Your task to perform on an android device: Open Google Image 0: 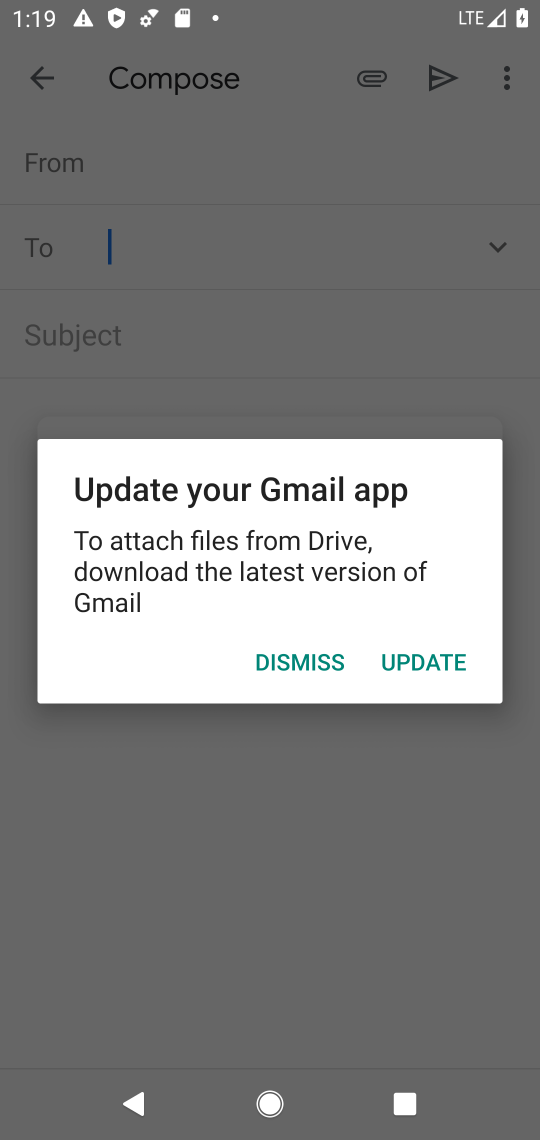
Step 0: press home button
Your task to perform on an android device: Open Google Image 1: 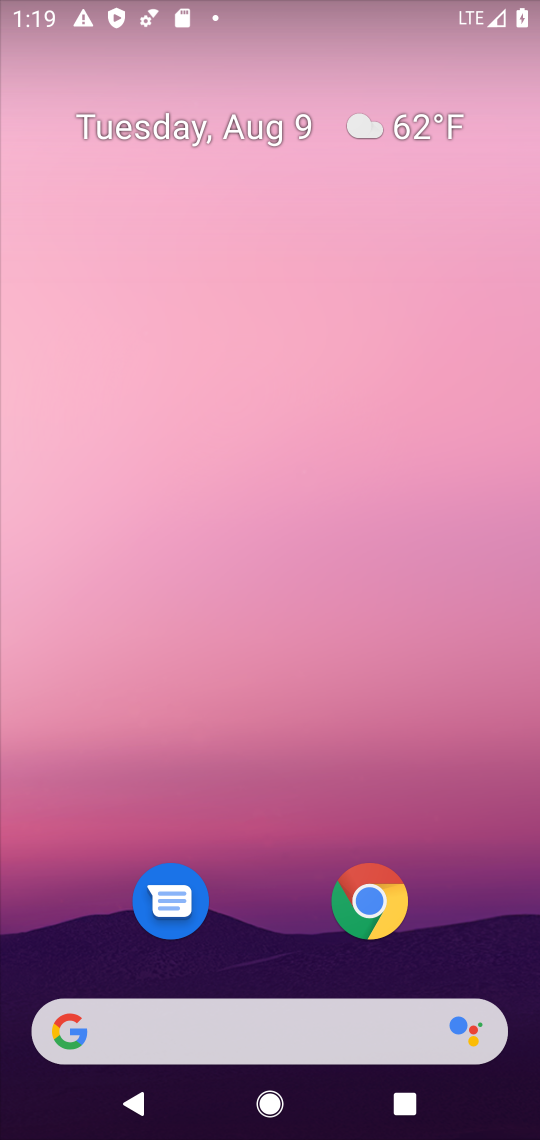
Step 1: click (379, 901)
Your task to perform on an android device: Open Google Image 2: 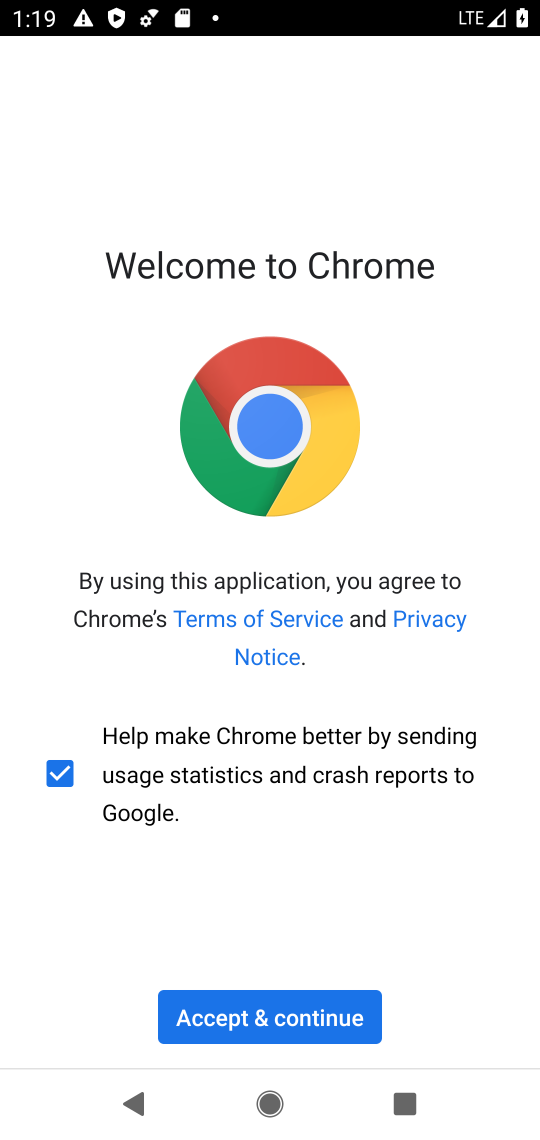
Step 2: click (244, 1018)
Your task to perform on an android device: Open Google Image 3: 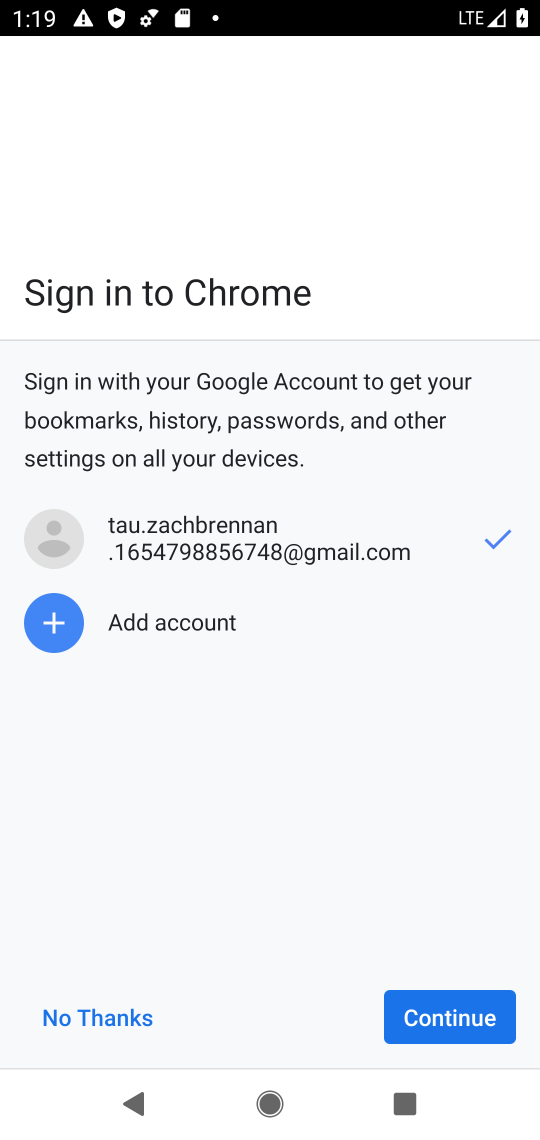
Step 3: click (451, 1010)
Your task to perform on an android device: Open Google Image 4: 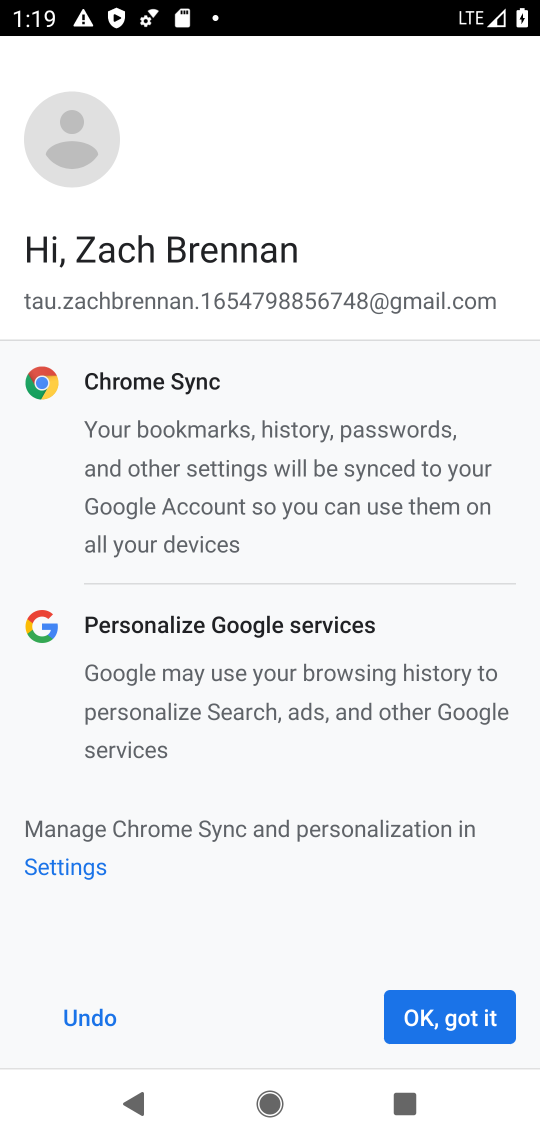
Step 4: click (451, 1021)
Your task to perform on an android device: Open Google Image 5: 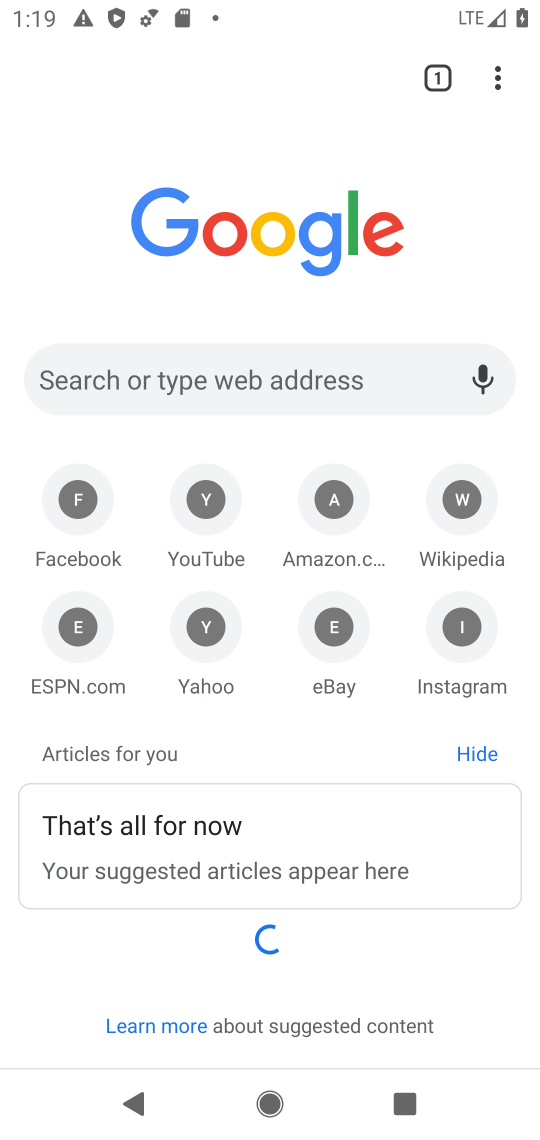
Step 5: task complete